Your task to perform on an android device: turn on translation in the chrome app Image 0: 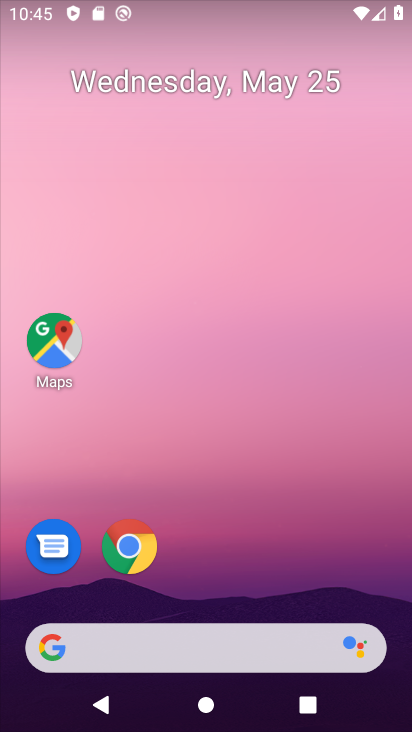
Step 0: drag from (257, 575) to (254, 203)
Your task to perform on an android device: turn on translation in the chrome app Image 1: 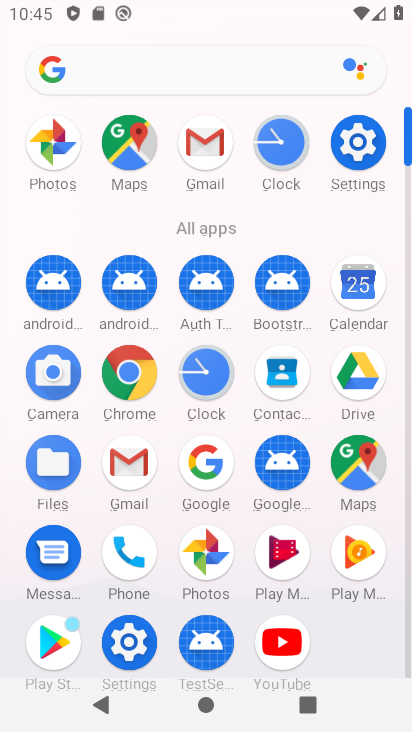
Step 1: click (125, 387)
Your task to perform on an android device: turn on translation in the chrome app Image 2: 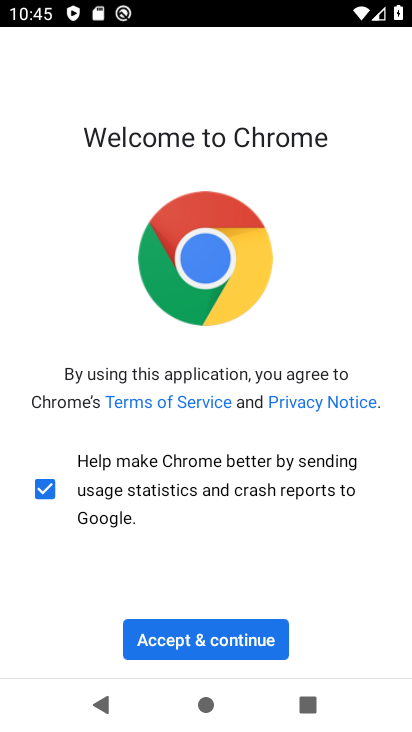
Step 2: click (235, 651)
Your task to perform on an android device: turn on translation in the chrome app Image 3: 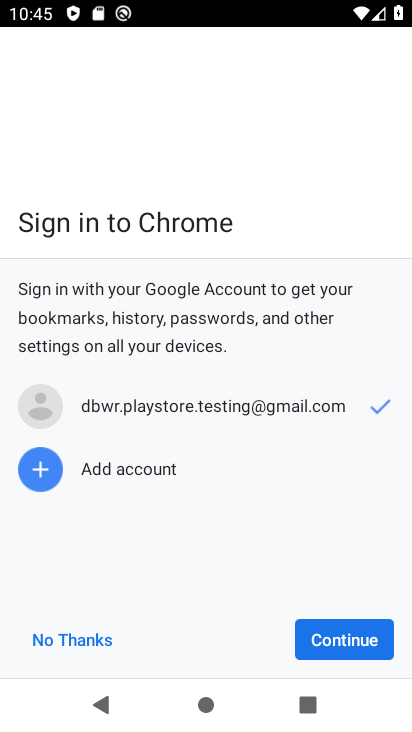
Step 3: click (348, 638)
Your task to perform on an android device: turn on translation in the chrome app Image 4: 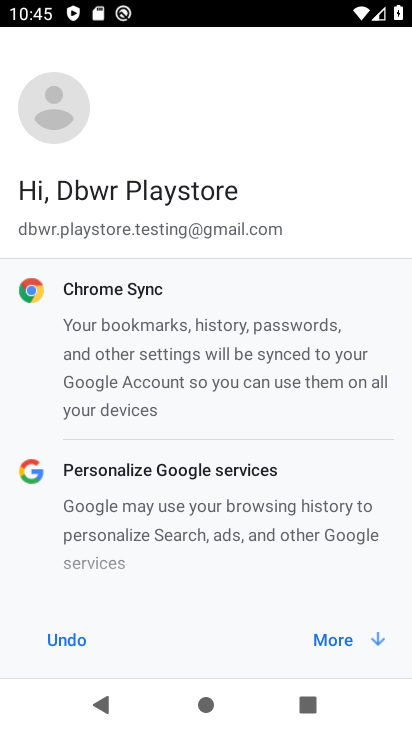
Step 4: click (358, 639)
Your task to perform on an android device: turn on translation in the chrome app Image 5: 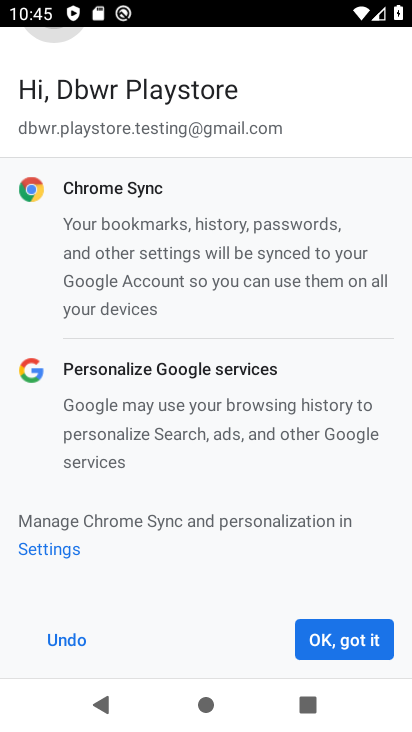
Step 5: click (358, 639)
Your task to perform on an android device: turn on translation in the chrome app Image 6: 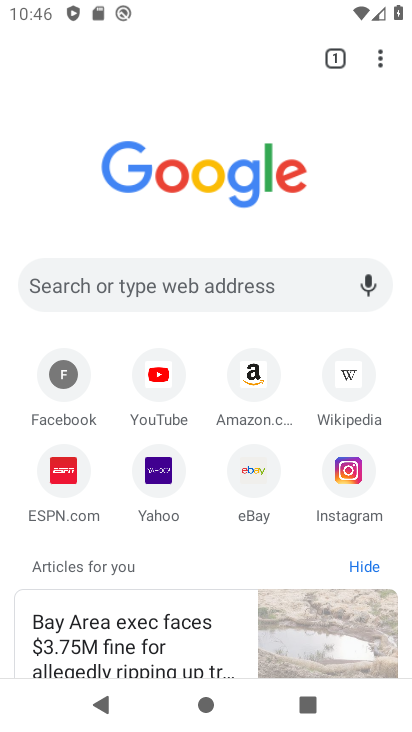
Step 6: drag from (374, 63) to (176, 484)
Your task to perform on an android device: turn on translation in the chrome app Image 7: 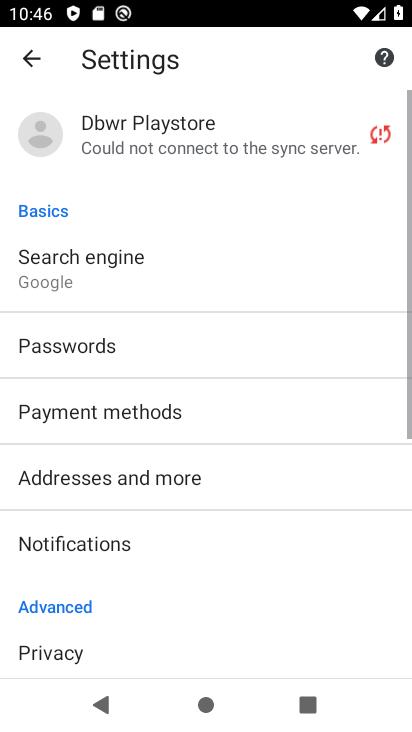
Step 7: drag from (222, 629) to (227, 352)
Your task to perform on an android device: turn on translation in the chrome app Image 8: 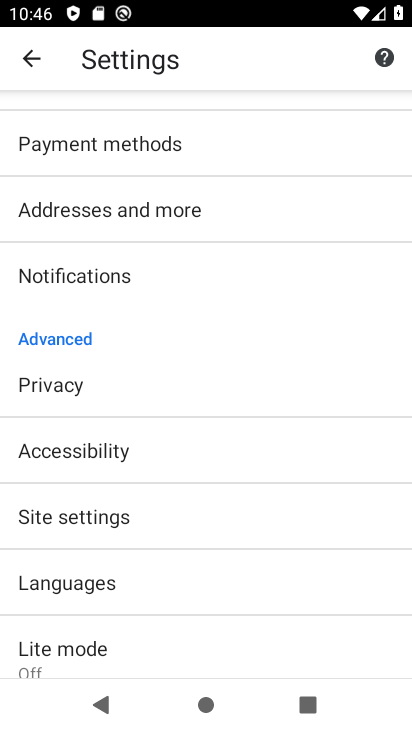
Step 8: drag from (245, 470) to (245, 351)
Your task to perform on an android device: turn on translation in the chrome app Image 9: 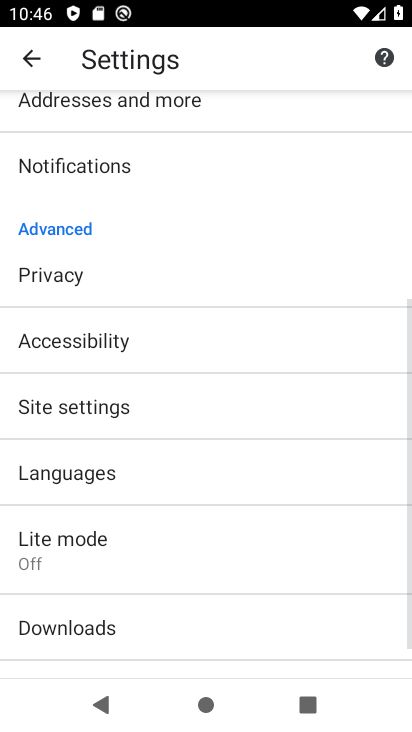
Step 9: click (120, 465)
Your task to perform on an android device: turn on translation in the chrome app Image 10: 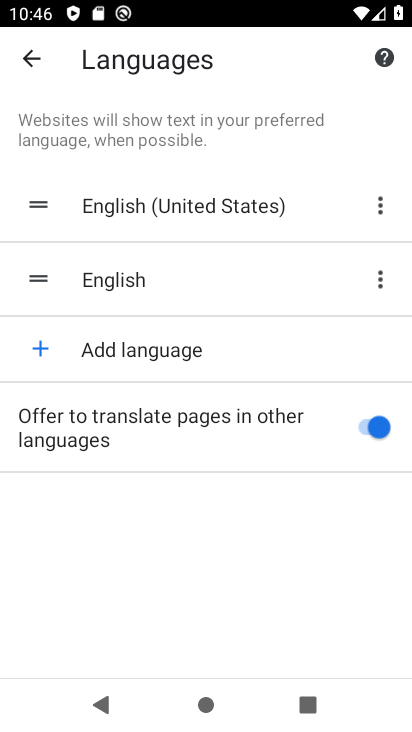
Step 10: task complete